Your task to perform on an android device: Open Maps and search for coffee Image 0: 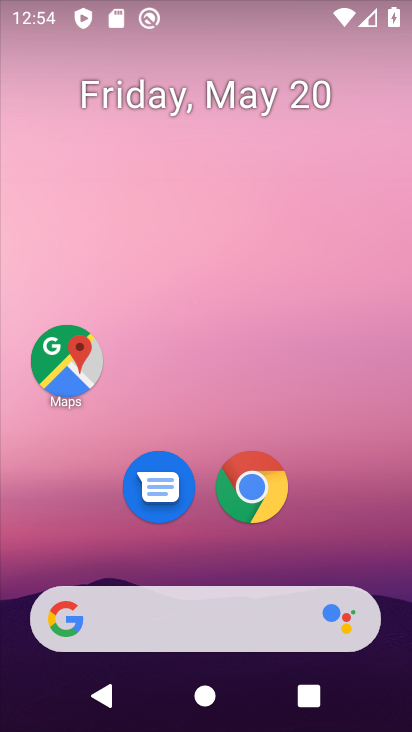
Step 0: drag from (342, 499) to (264, 61)
Your task to perform on an android device: Open Maps and search for coffee Image 1: 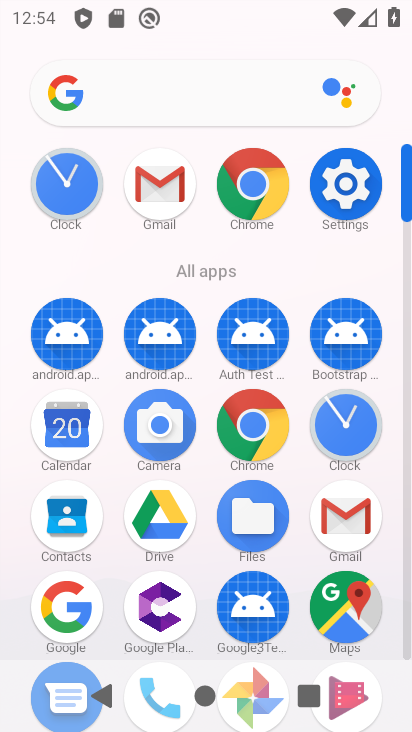
Step 1: click (354, 606)
Your task to perform on an android device: Open Maps and search for coffee Image 2: 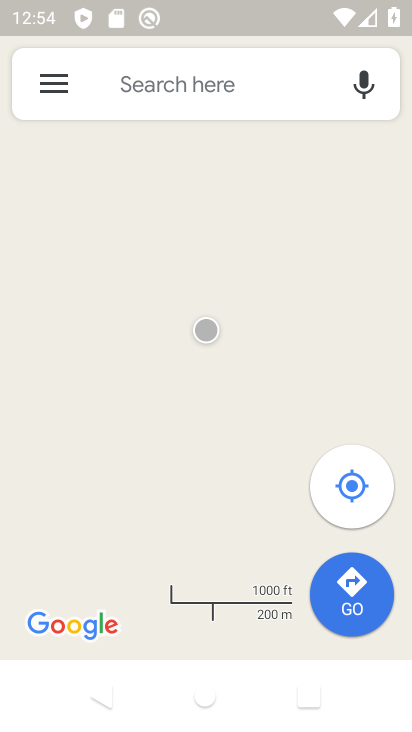
Step 2: click (201, 82)
Your task to perform on an android device: Open Maps and search for coffee Image 3: 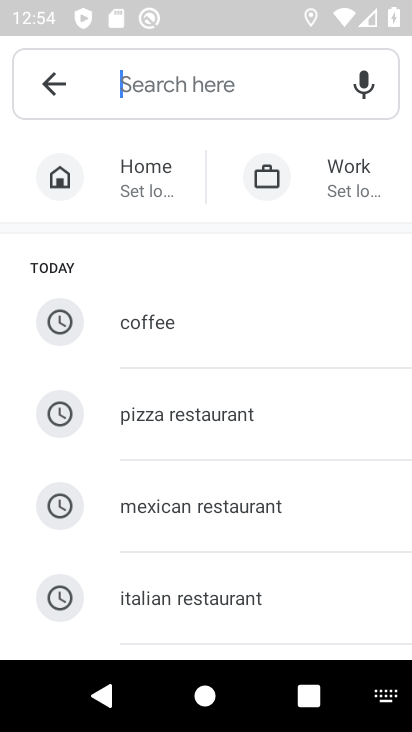
Step 3: click (164, 328)
Your task to perform on an android device: Open Maps and search for coffee Image 4: 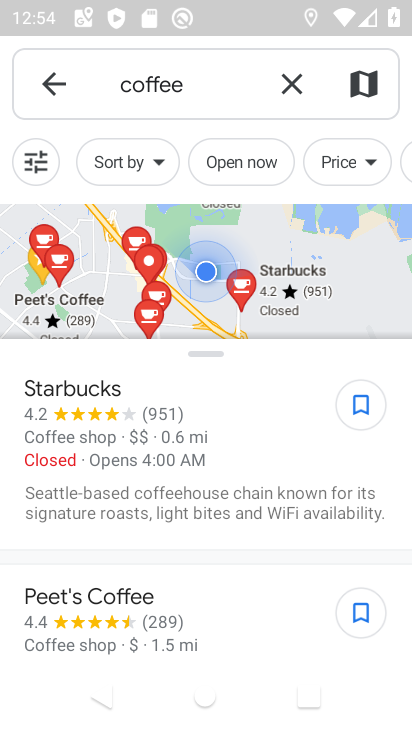
Step 4: task complete